Your task to perform on an android device: Empty the shopping cart on costco.com. Add jbl charge 4 to the cart on costco.com Image 0: 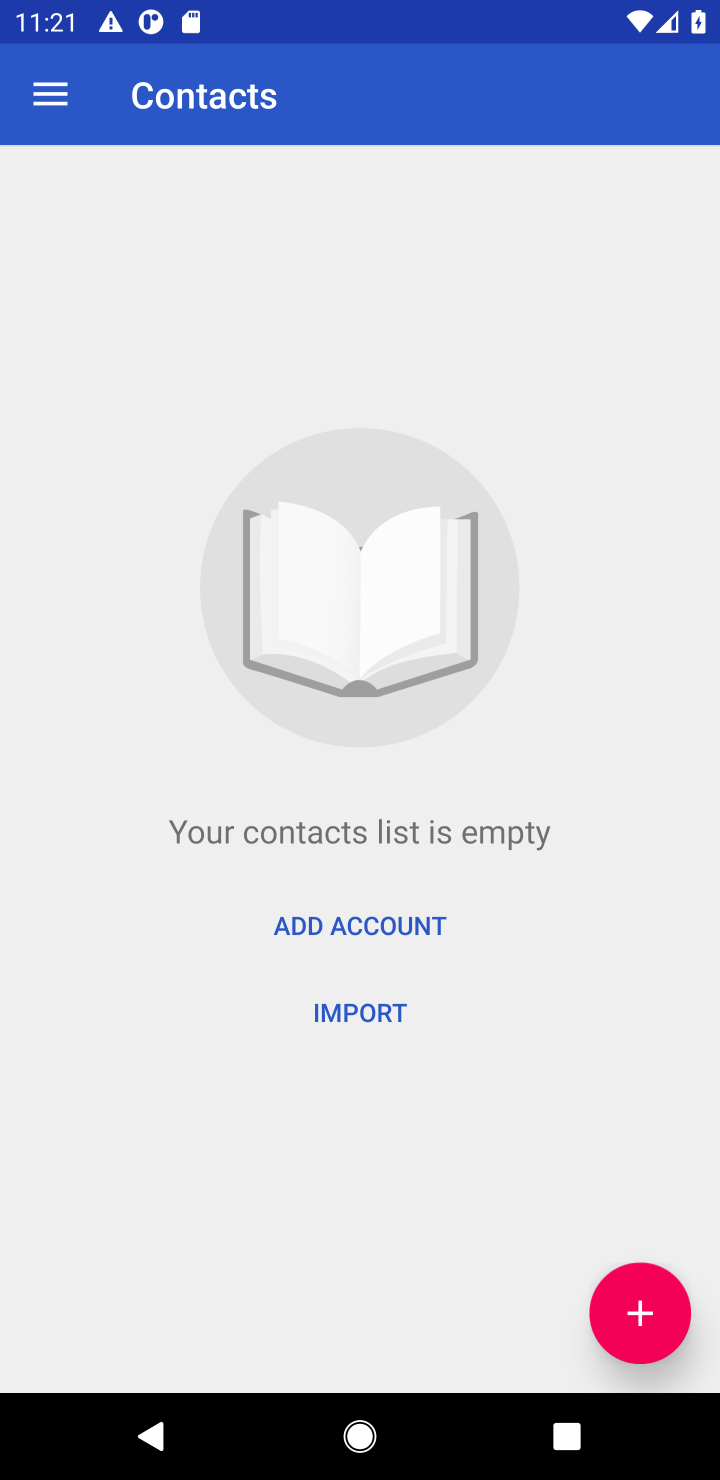
Step 0: press home button
Your task to perform on an android device: Empty the shopping cart on costco.com. Add jbl charge 4 to the cart on costco.com Image 1: 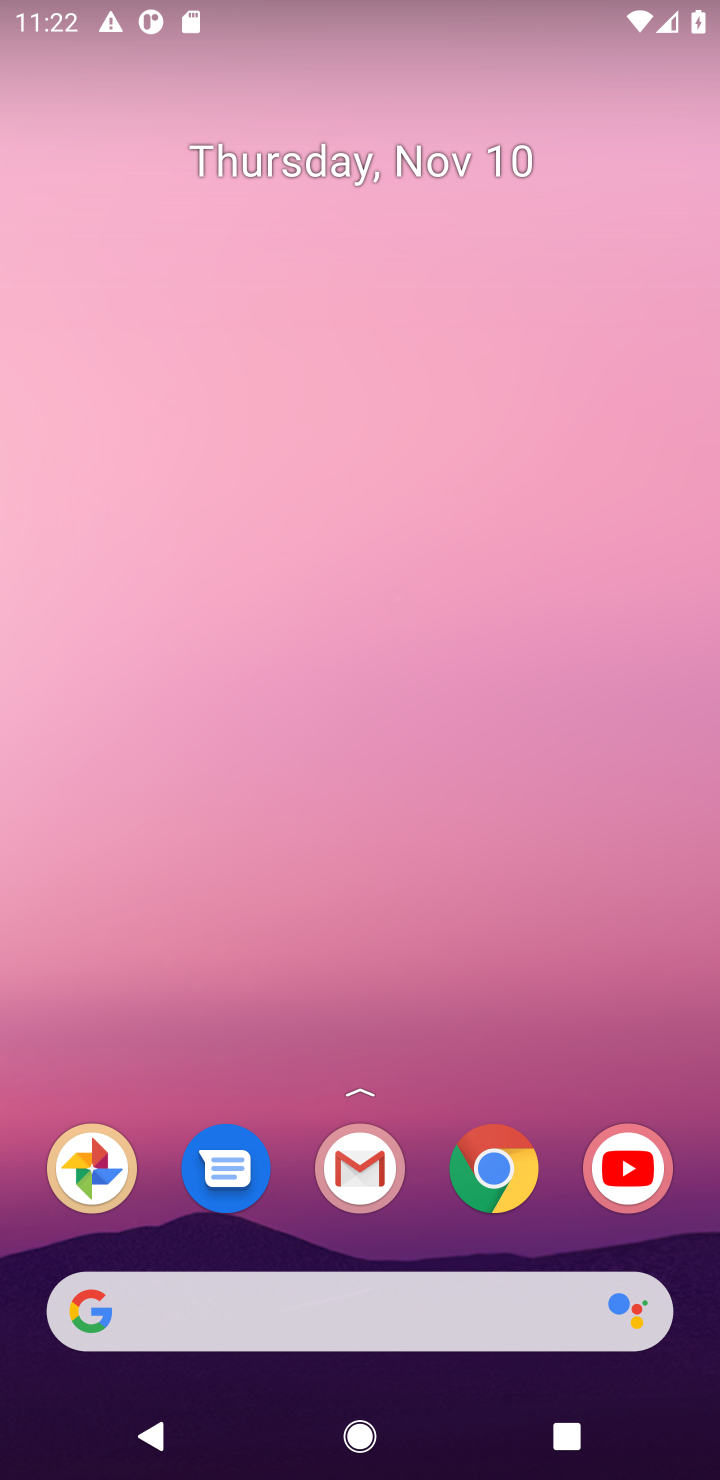
Step 1: click (515, 1194)
Your task to perform on an android device: Empty the shopping cart on costco.com. Add jbl charge 4 to the cart on costco.com Image 2: 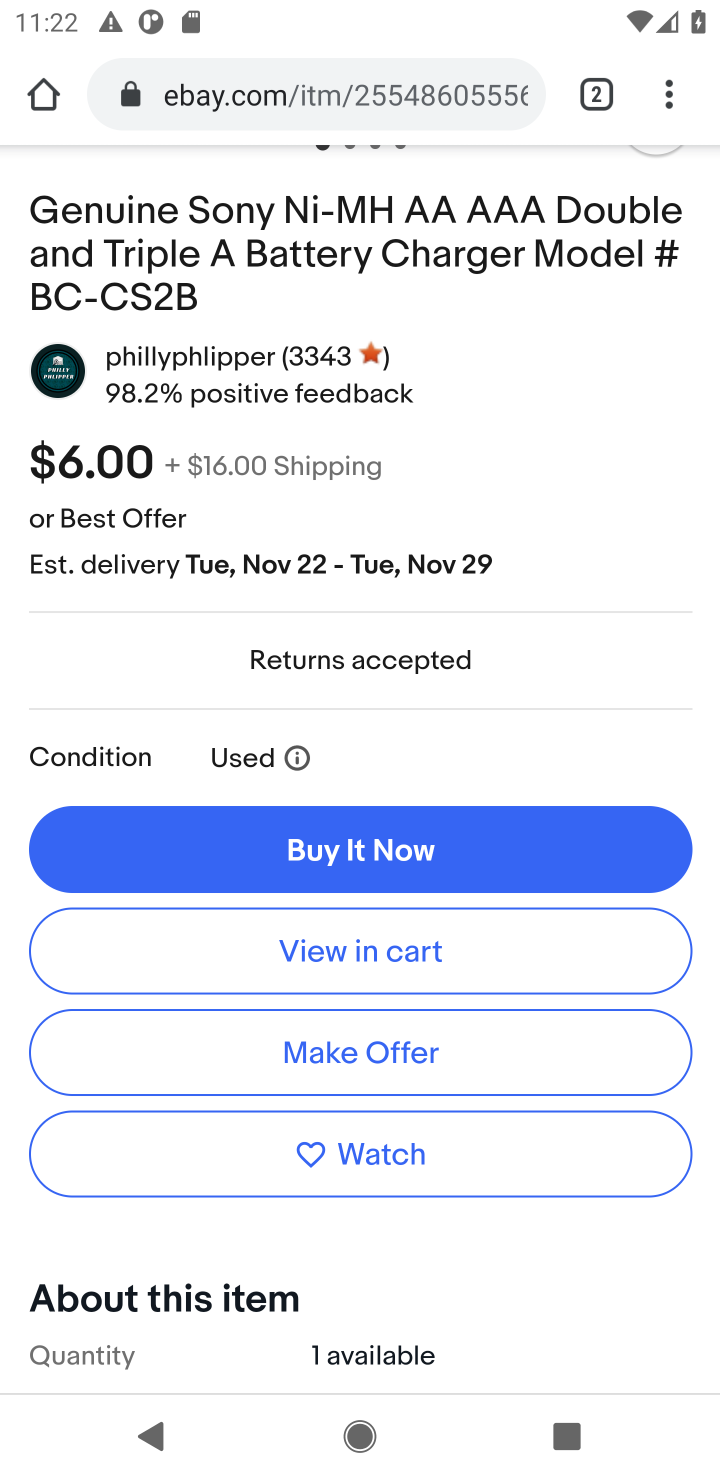
Step 2: click (297, 91)
Your task to perform on an android device: Empty the shopping cart on costco.com. Add jbl charge 4 to the cart on costco.com Image 3: 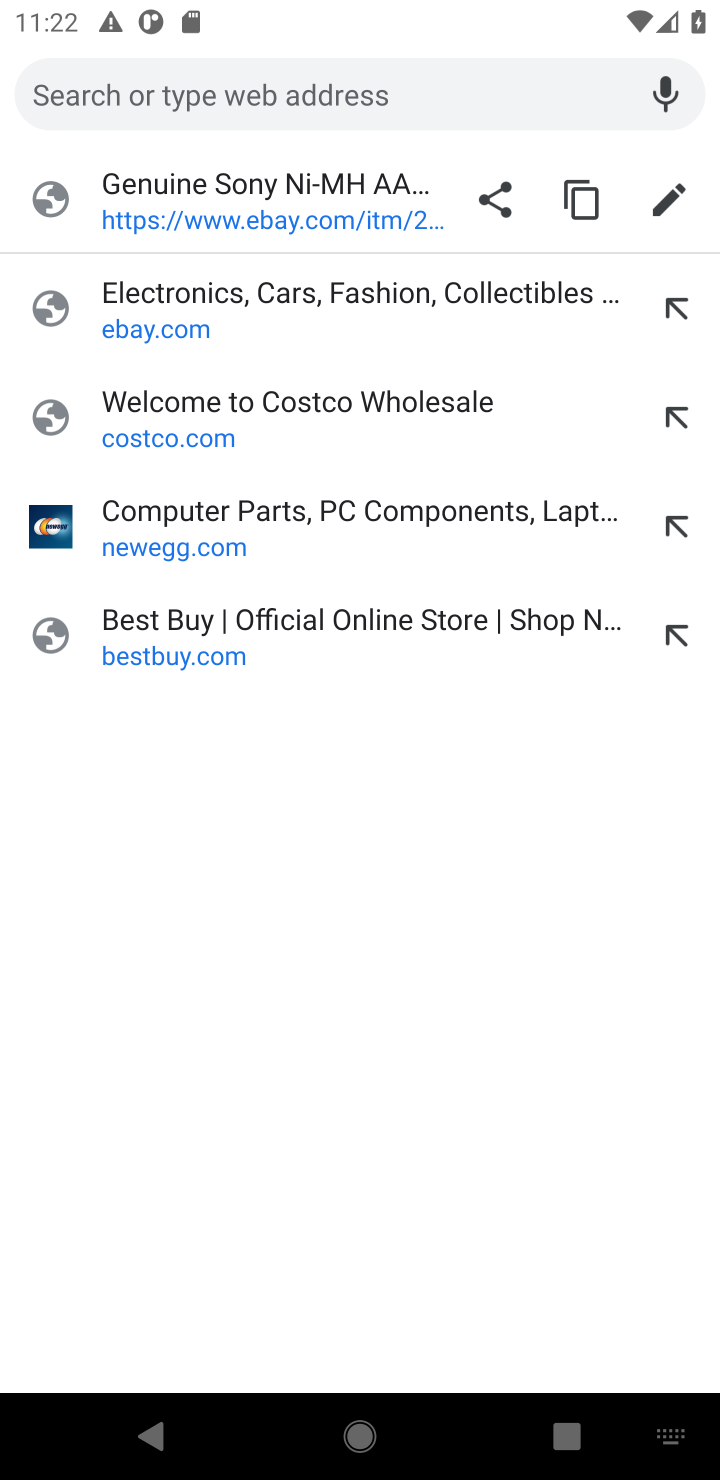
Step 3: click (153, 429)
Your task to perform on an android device: Empty the shopping cart on costco.com. Add jbl charge 4 to the cart on costco.com Image 4: 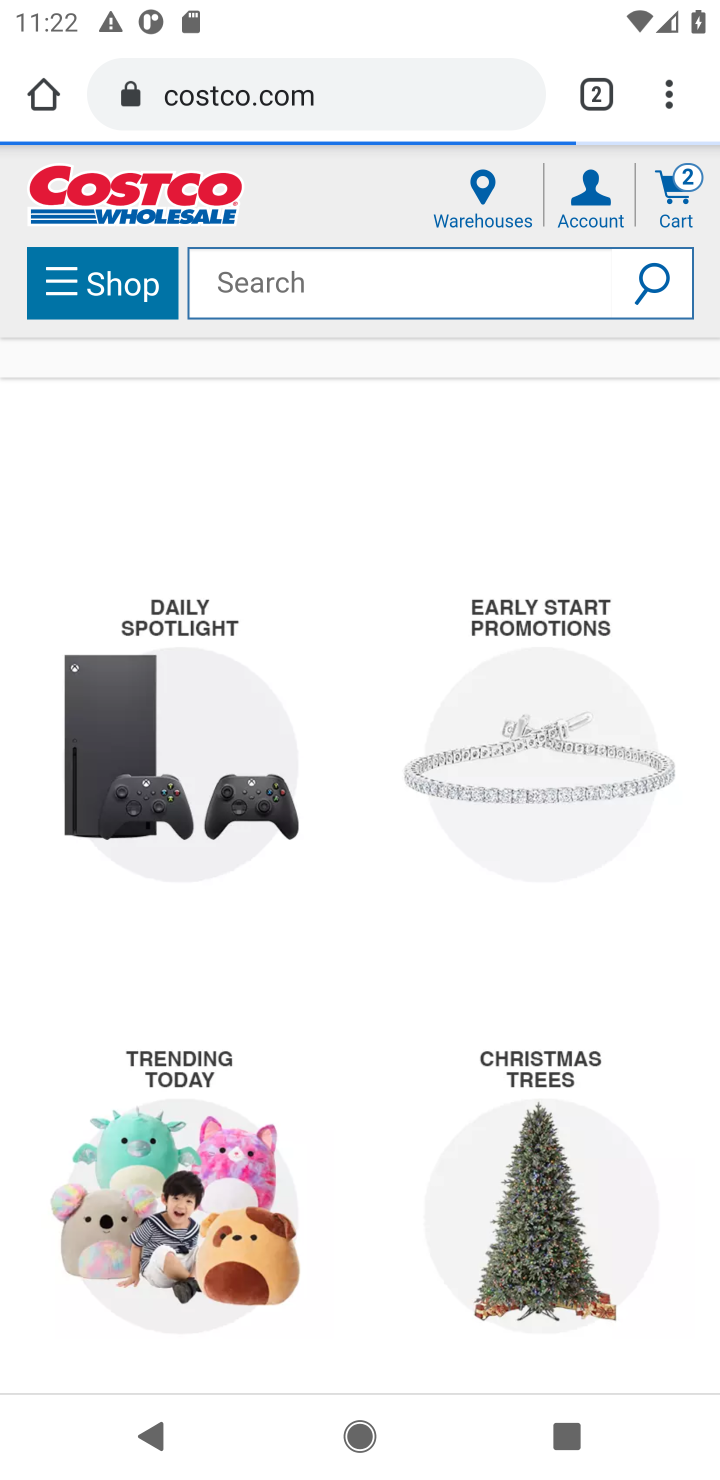
Step 4: click (685, 199)
Your task to perform on an android device: Empty the shopping cart on costco.com. Add jbl charge 4 to the cart on costco.com Image 5: 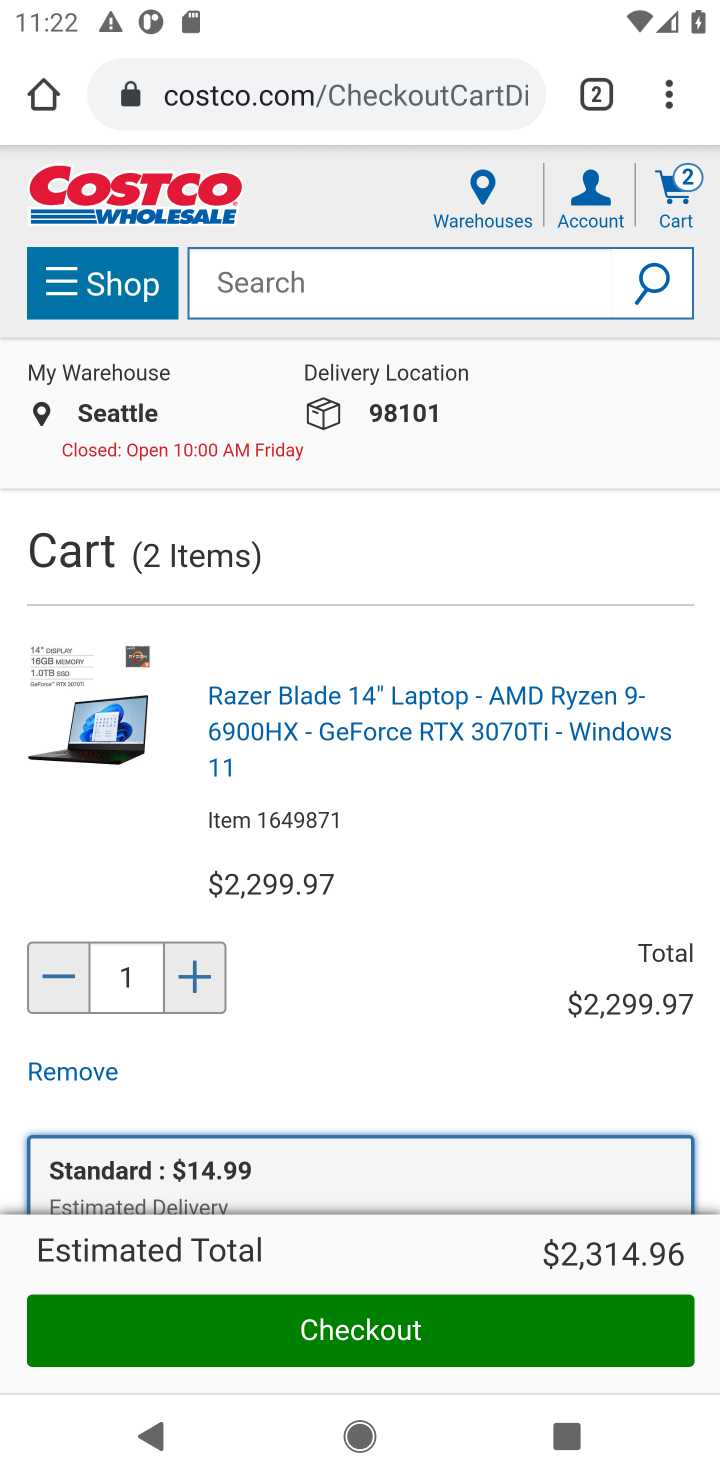
Step 5: drag from (401, 1034) to (416, 844)
Your task to perform on an android device: Empty the shopping cart on costco.com. Add jbl charge 4 to the cart on costco.com Image 6: 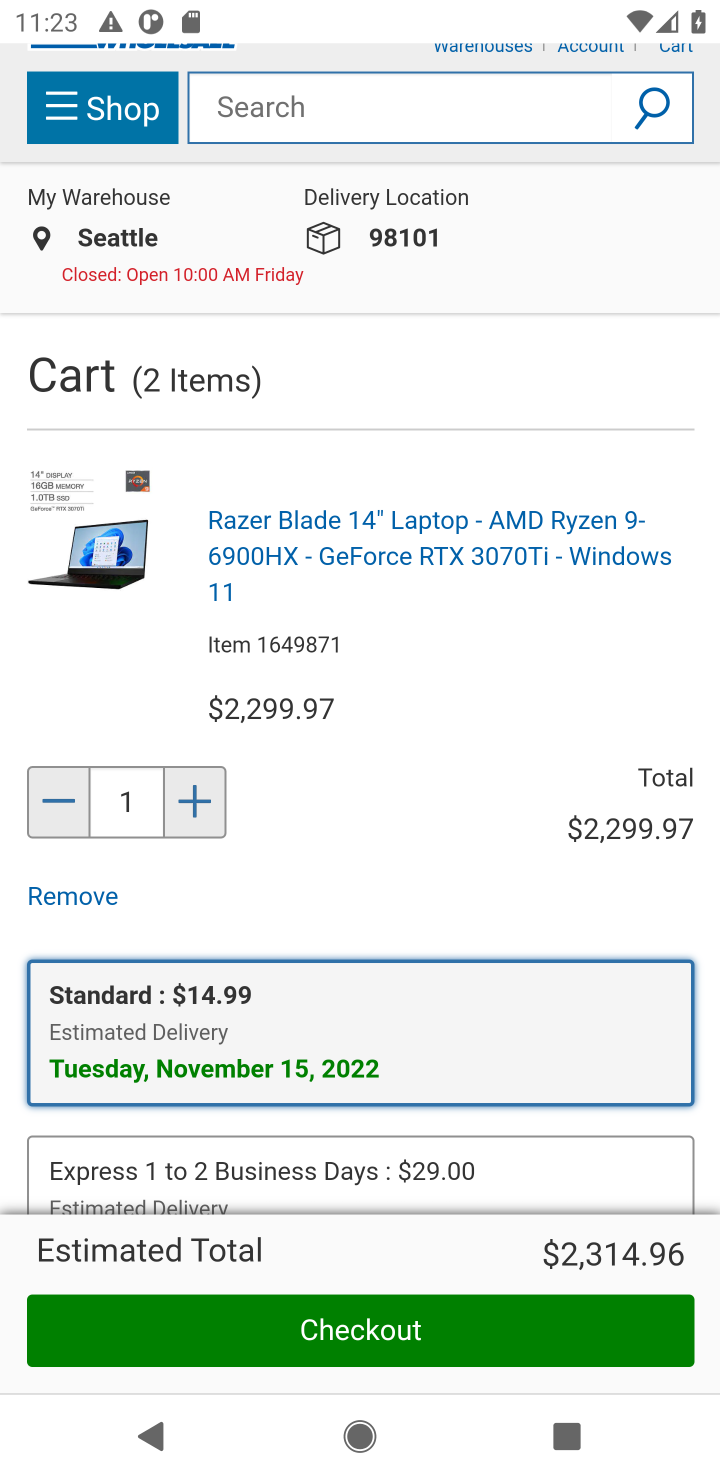
Step 6: drag from (295, 847) to (348, 334)
Your task to perform on an android device: Empty the shopping cart on costco.com. Add jbl charge 4 to the cart on costco.com Image 7: 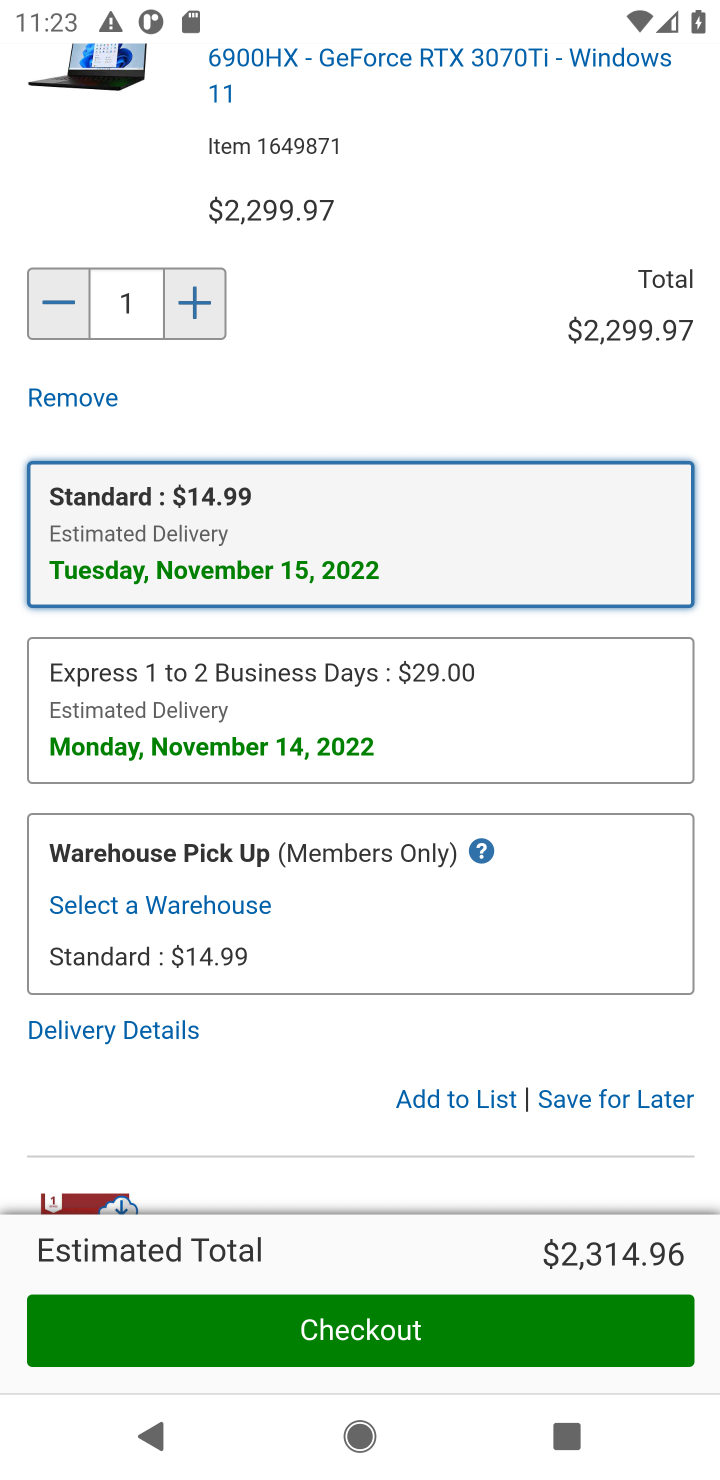
Step 7: click (631, 1095)
Your task to perform on an android device: Empty the shopping cart on costco.com. Add jbl charge 4 to the cart on costco.com Image 8: 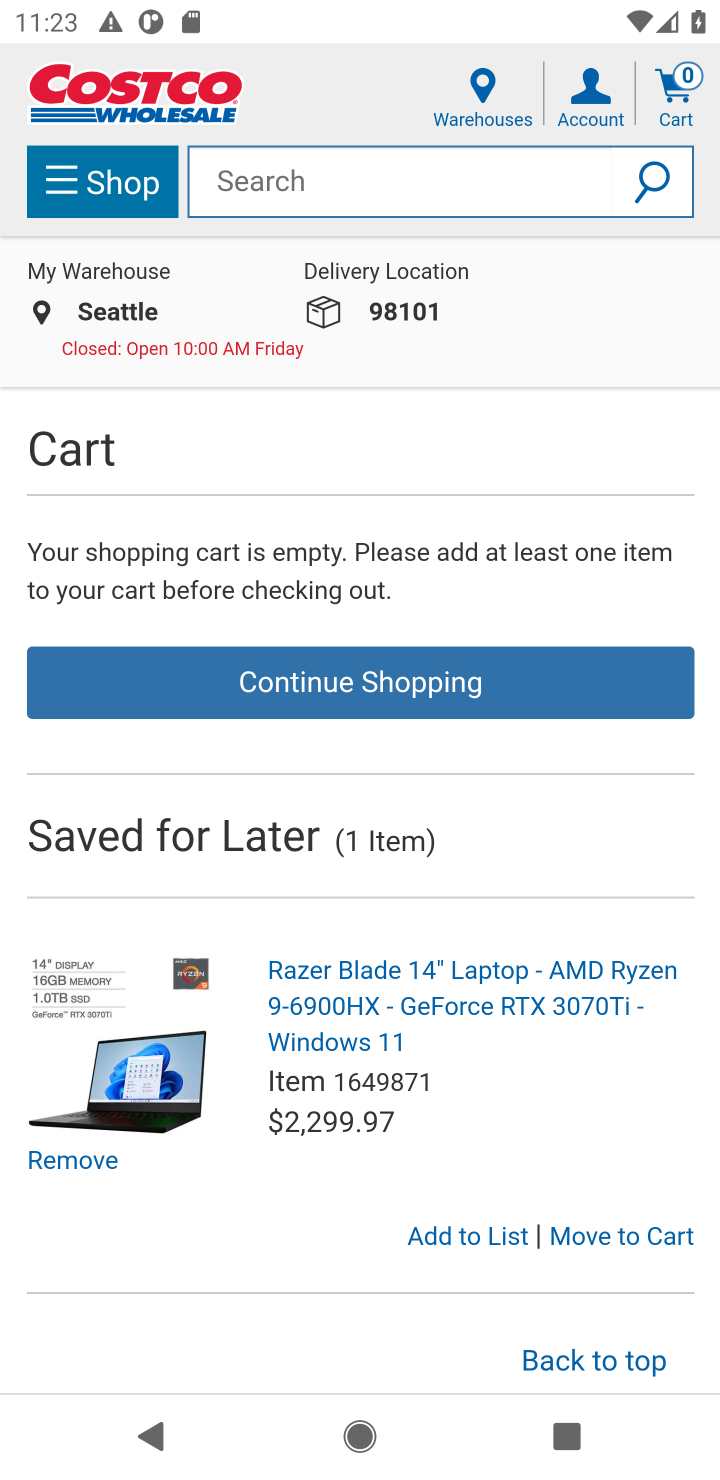
Step 8: drag from (403, 1009) to (412, 1076)
Your task to perform on an android device: Empty the shopping cart on costco.com. Add jbl charge 4 to the cart on costco.com Image 9: 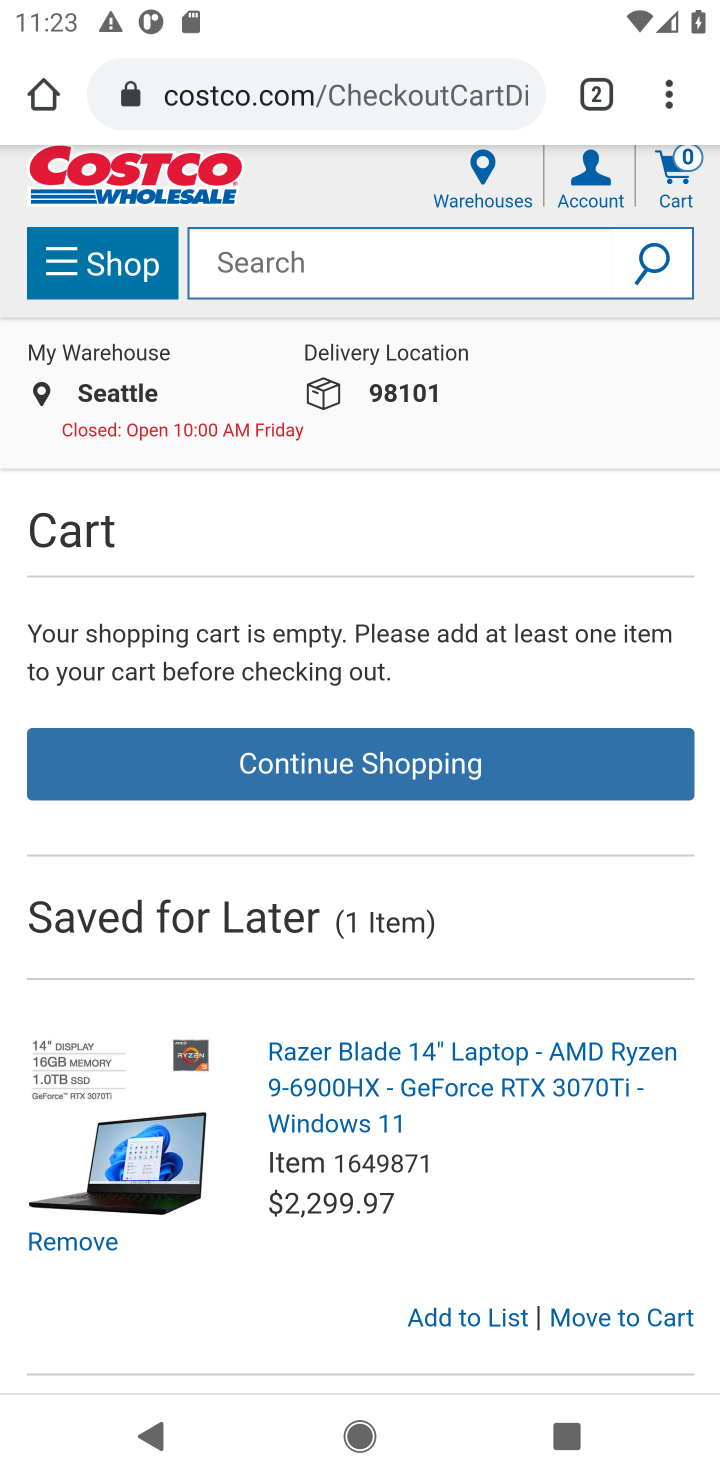
Step 9: click (375, 248)
Your task to perform on an android device: Empty the shopping cart on costco.com. Add jbl charge 4 to the cart on costco.com Image 10: 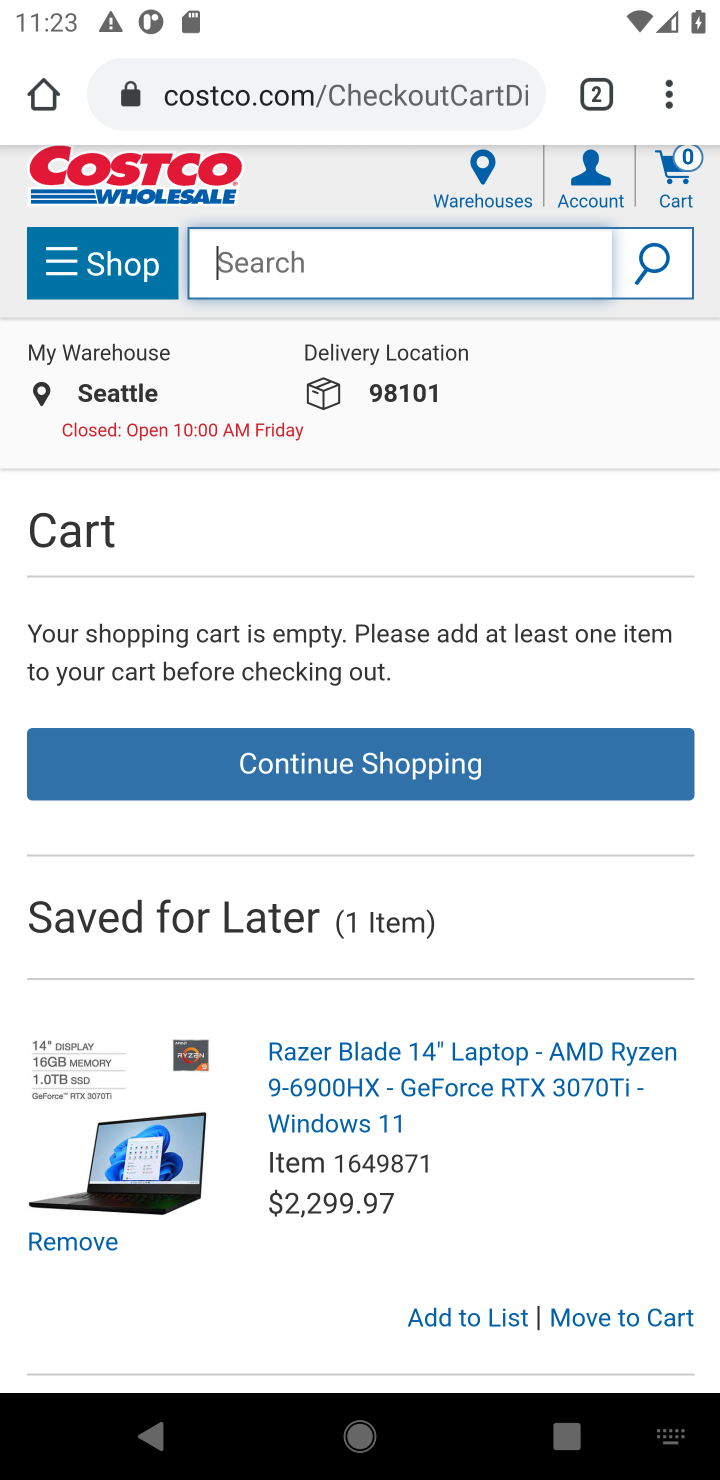
Step 10: type "jbl charge 4"
Your task to perform on an android device: Empty the shopping cart on costco.com. Add jbl charge 4 to the cart on costco.com Image 11: 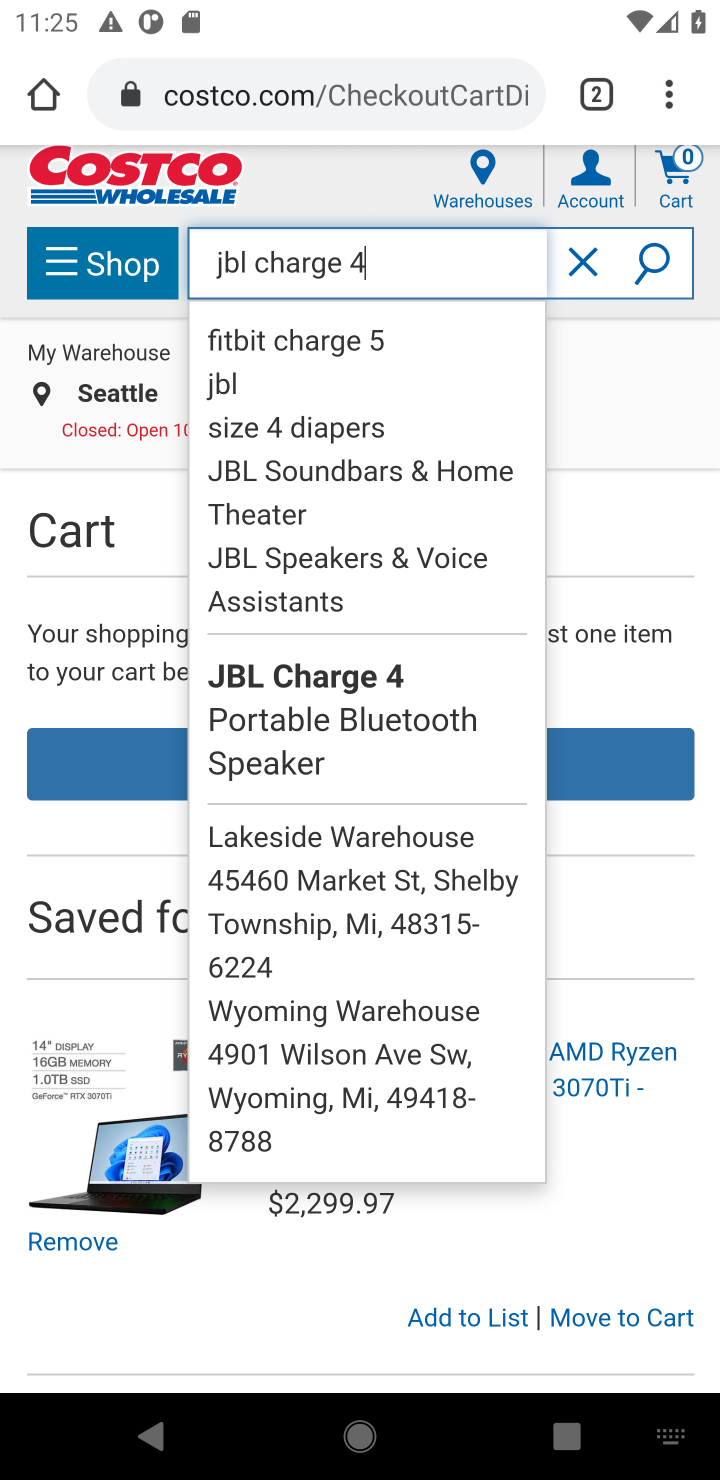
Step 11: click (648, 259)
Your task to perform on an android device: Empty the shopping cart on costco.com. Add jbl charge 4 to the cart on costco.com Image 12: 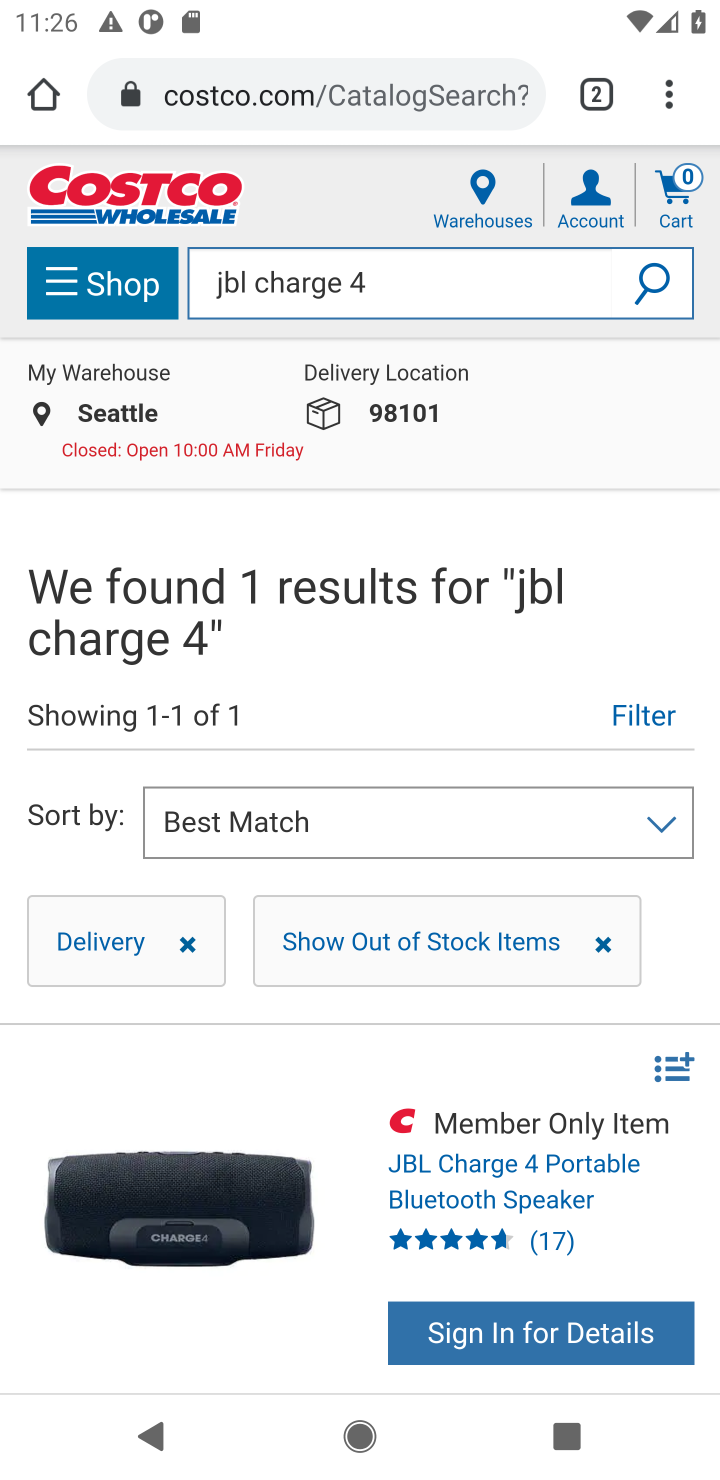
Step 12: drag from (220, 1172) to (288, 577)
Your task to perform on an android device: Empty the shopping cart on costco.com. Add jbl charge 4 to the cart on costco.com Image 13: 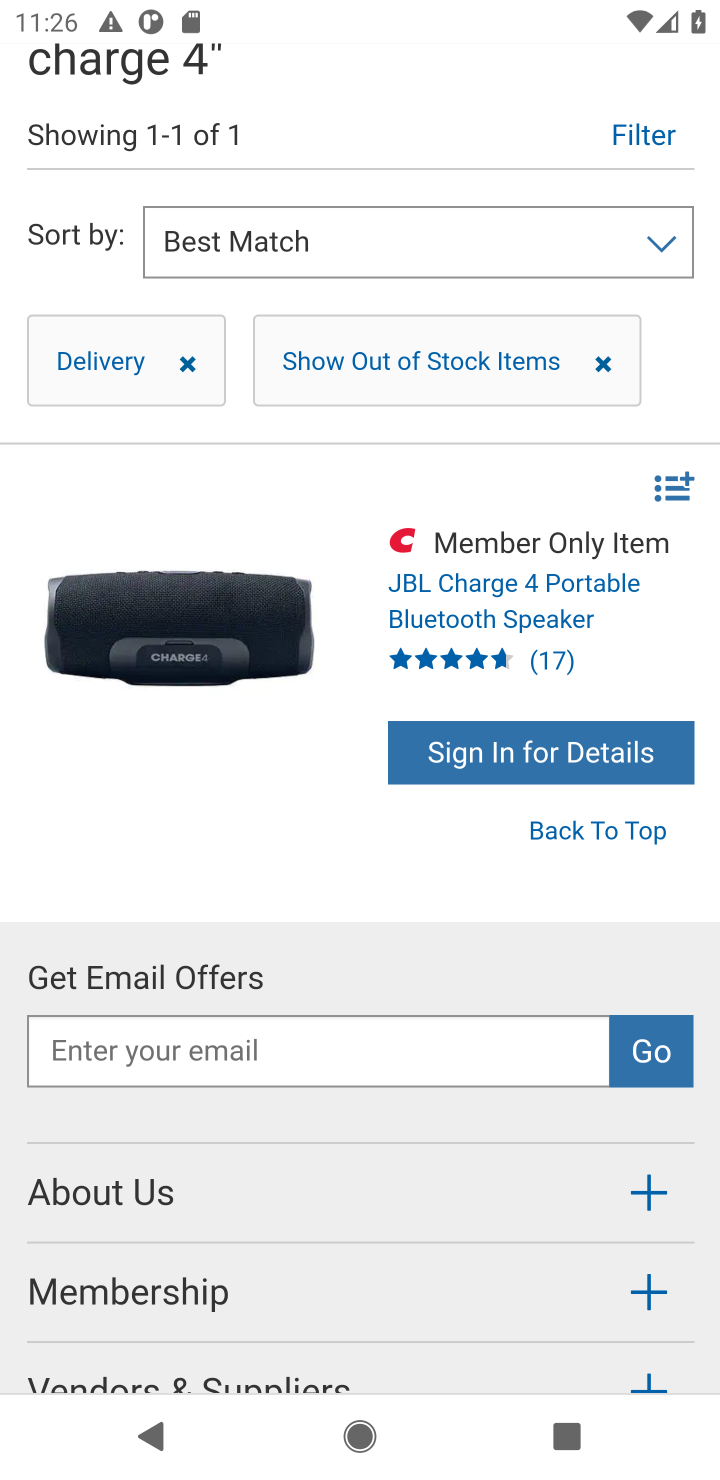
Step 13: click (219, 659)
Your task to perform on an android device: Empty the shopping cart on costco.com. Add jbl charge 4 to the cart on costco.com Image 14: 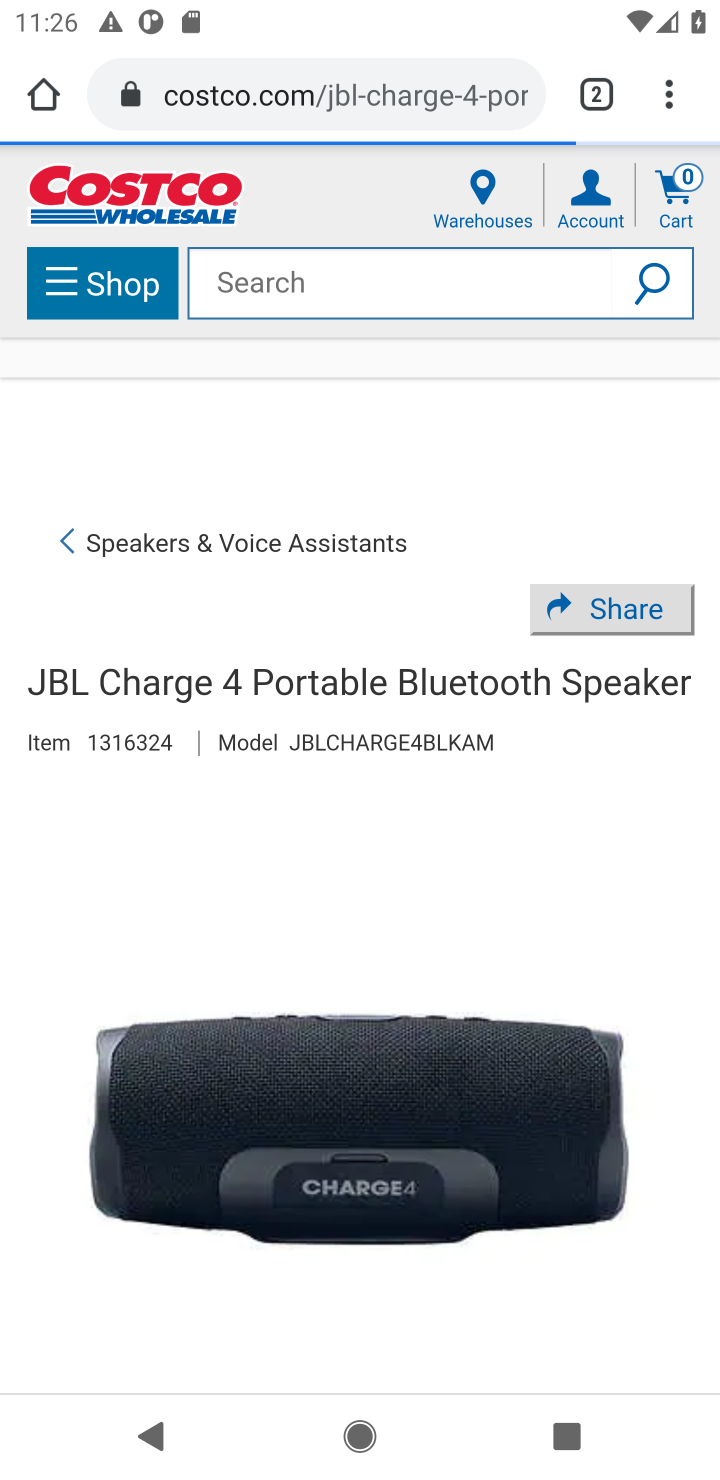
Step 14: task complete